Your task to perform on an android device: add a label to a message in the gmail app Image 0: 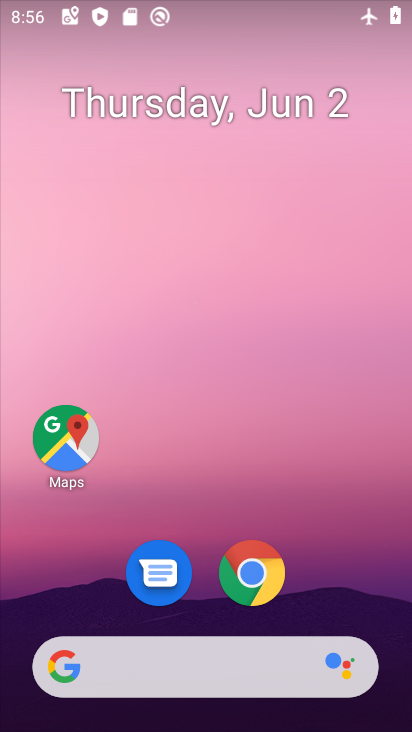
Step 0: press home button
Your task to perform on an android device: add a label to a message in the gmail app Image 1: 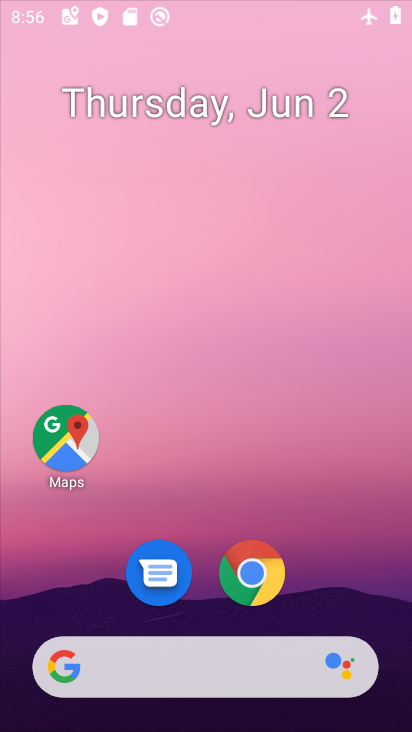
Step 1: drag from (360, 595) to (309, 3)
Your task to perform on an android device: add a label to a message in the gmail app Image 2: 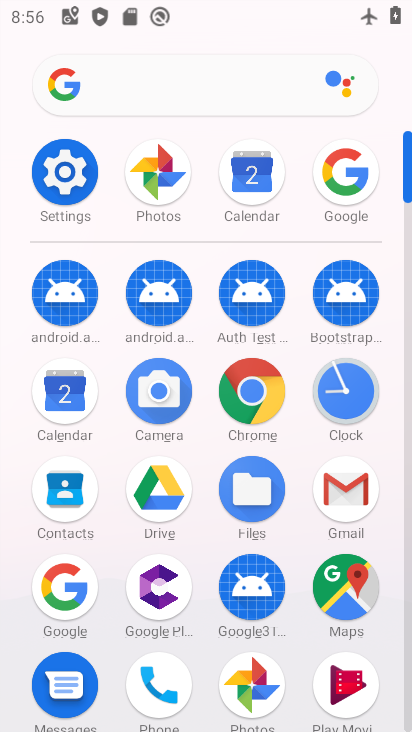
Step 2: click (340, 480)
Your task to perform on an android device: add a label to a message in the gmail app Image 3: 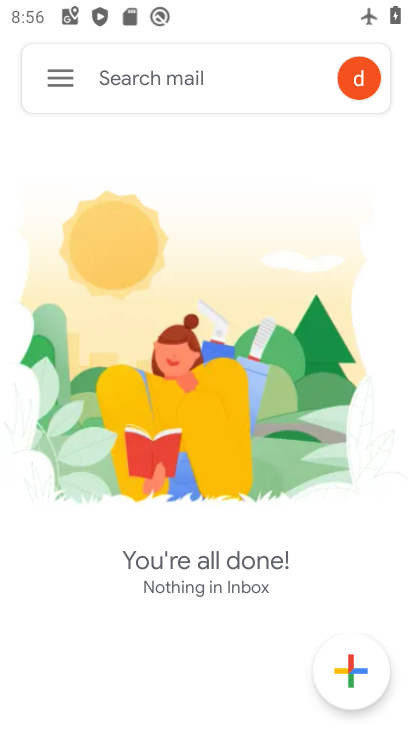
Step 3: task complete